Your task to perform on an android device: Go to Reddit.com Image 0: 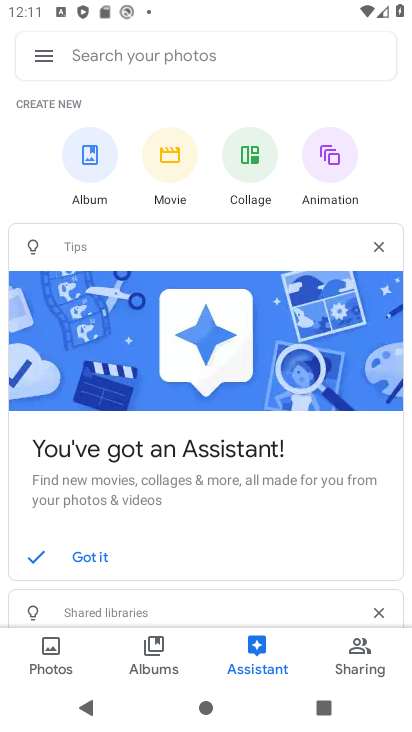
Step 0: press home button
Your task to perform on an android device: Go to Reddit.com Image 1: 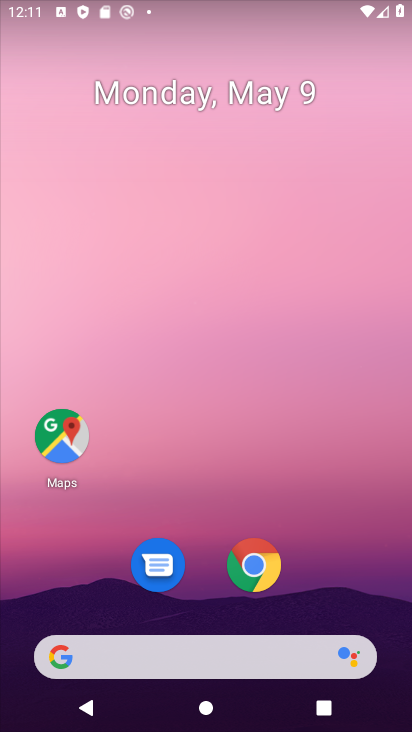
Step 1: click (266, 575)
Your task to perform on an android device: Go to Reddit.com Image 2: 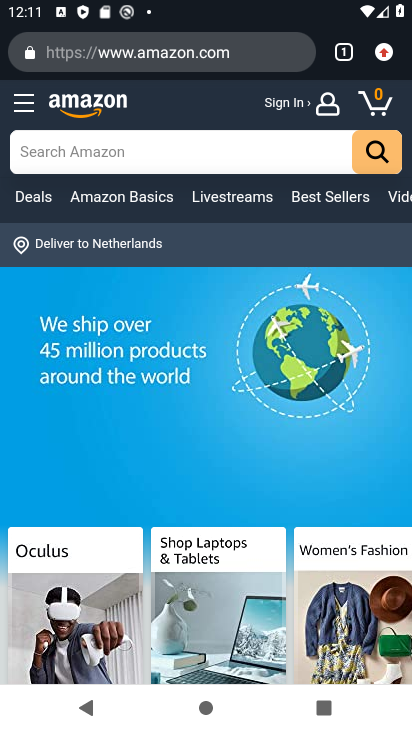
Step 2: click (223, 52)
Your task to perform on an android device: Go to Reddit.com Image 3: 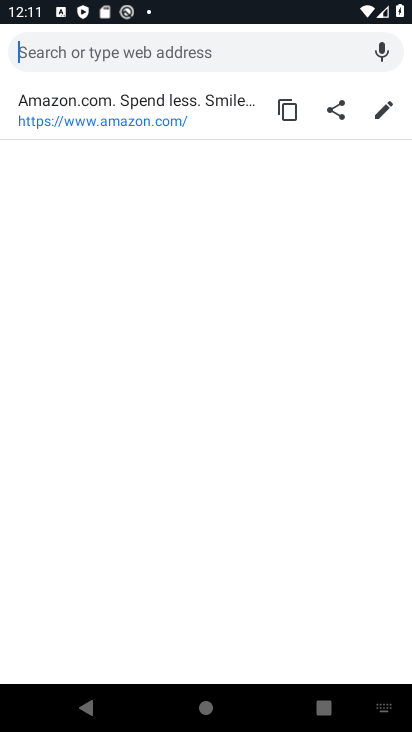
Step 3: type "reddit.com"
Your task to perform on an android device: Go to Reddit.com Image 4: 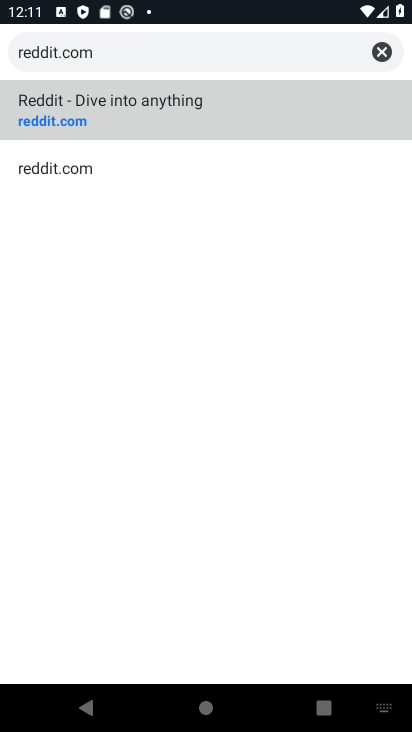
Step 4: click (205, 110)
Your task to perform on an android device: Go to Reddit.com Image 5: 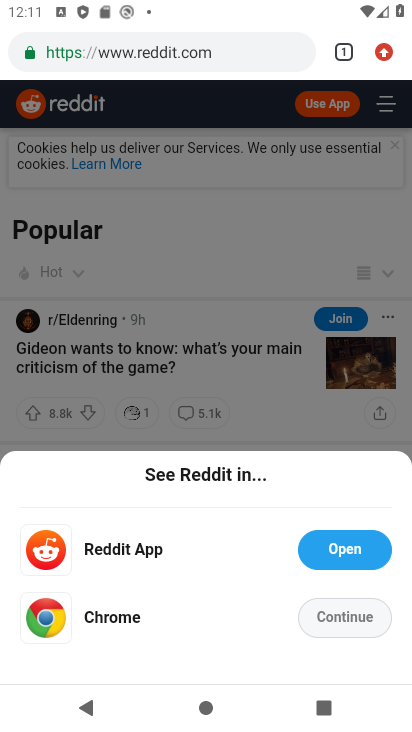
Step 5: click (309, 624)
Your task to perform on an android device: Go to Reddit.com Image 6: 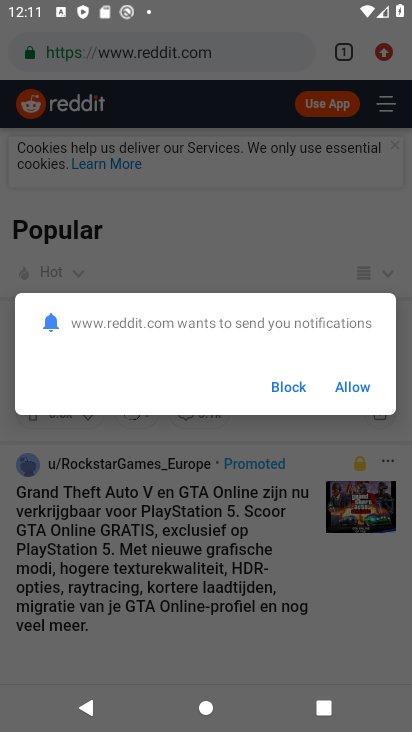
Step 6: click (333, 390)
Your task to perform on an android device: Go to Reddit.com Image 7: 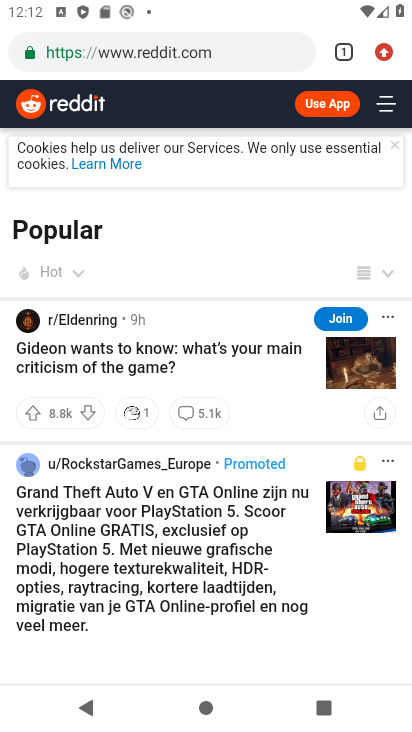
Step 7: task complete